Your task to perform on an android device: delete a single message in the gmail app Image 0: 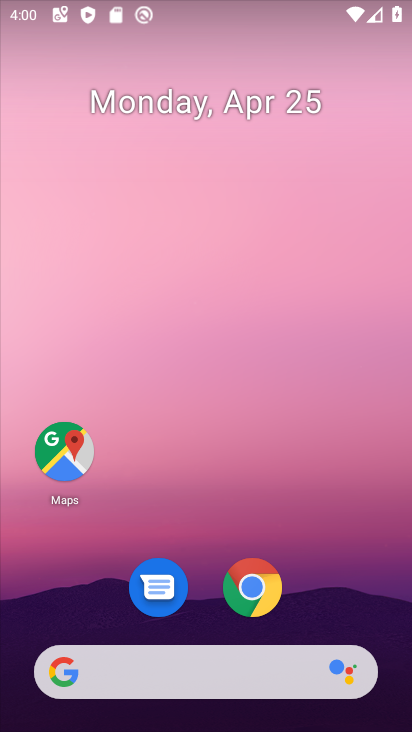
Step 0: drag from (346, 637) to (340, 35)
Your task to perform on an android device: delete a single message in the gmail app Image 1: 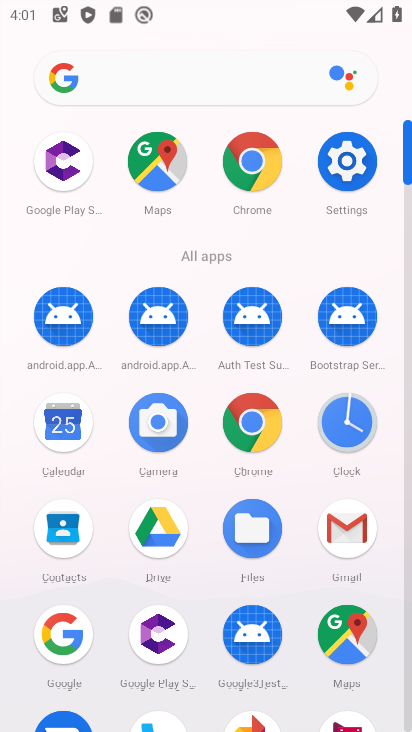
Step 1: click (339, 534)
Your task to perform on an android device: delete a single message in the gmail app Image 2: 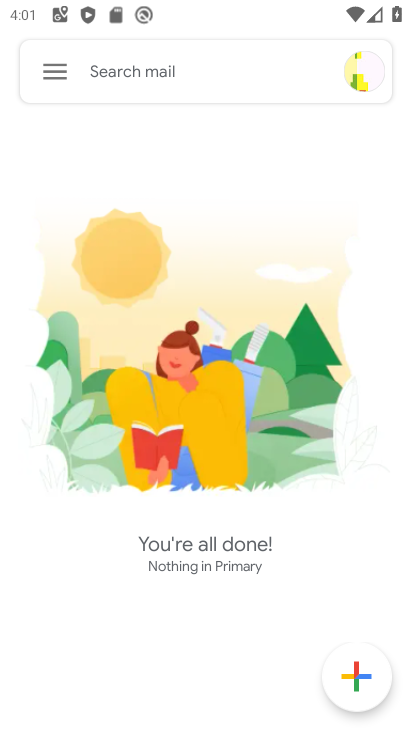
Step 2: click (42, 70)
Your task to perform on an android device: delete a single message in the gmail app Image 3: 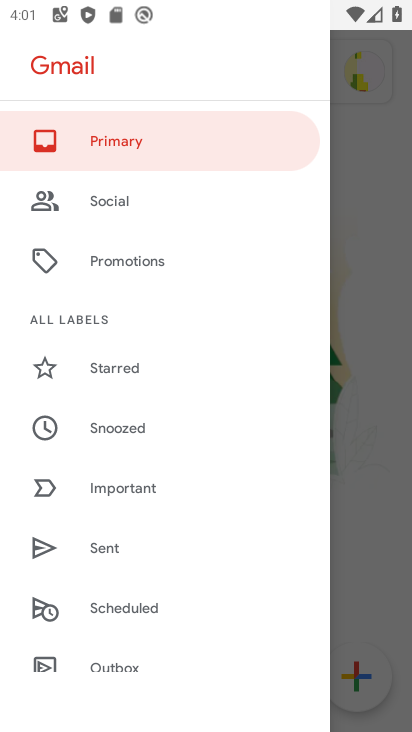
Step 3: drag from (187, 498) to (176, 176)
Your task to perform on an android device: delete a single message in the gmail app Image 4: 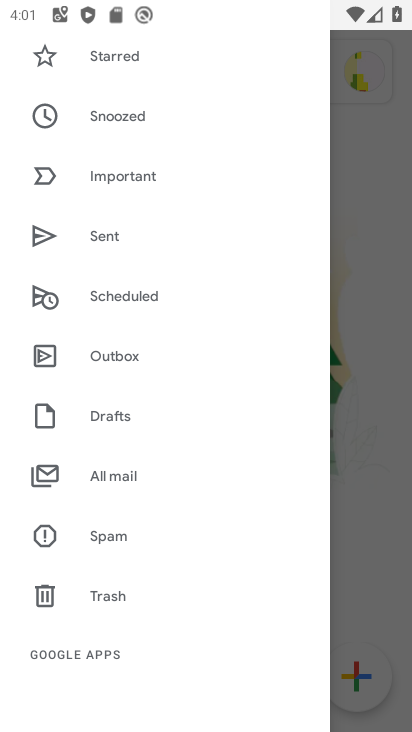
Step 4: click (101, 473)
Your task to perform on an android device: delete a single message in the gmail app Image 5: 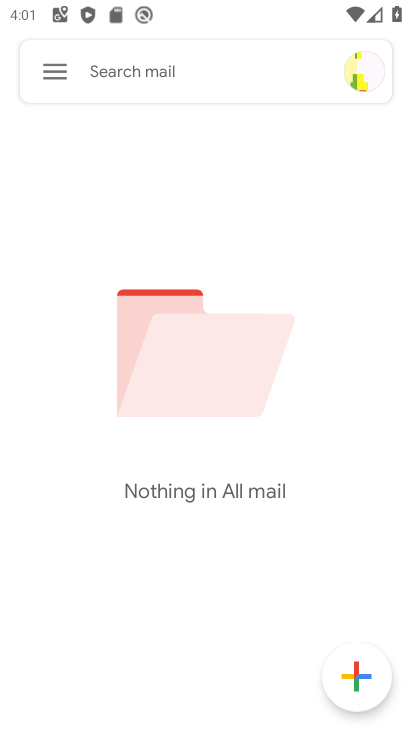
Step 5: task complete